Your task to perform on an android device: toggle location history Image 0: 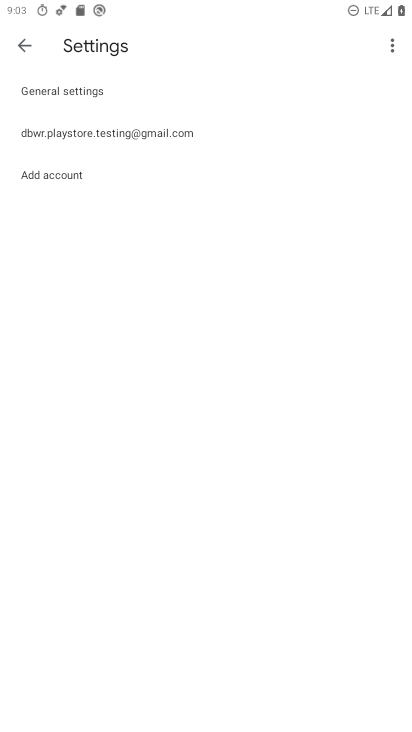
Step 0: drag from (209, 584) to (190, 66)
Your task to perform on an android device: toggle location history Image 1: 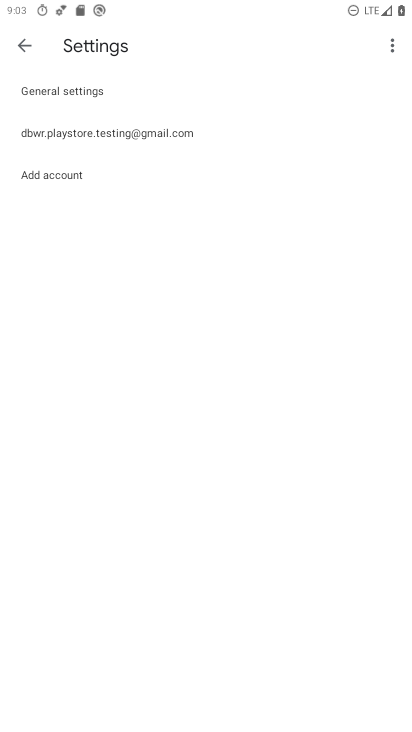
Step 1: press home button
Your task to perform on an android device: toggle location history Image 2: 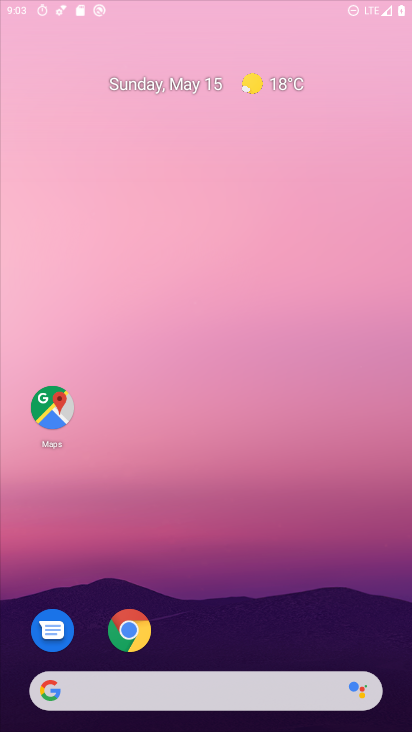
Step 2: drag from (131, 559) to (171, 21)
Your task to perform on an android device: toggle location history Image 3: 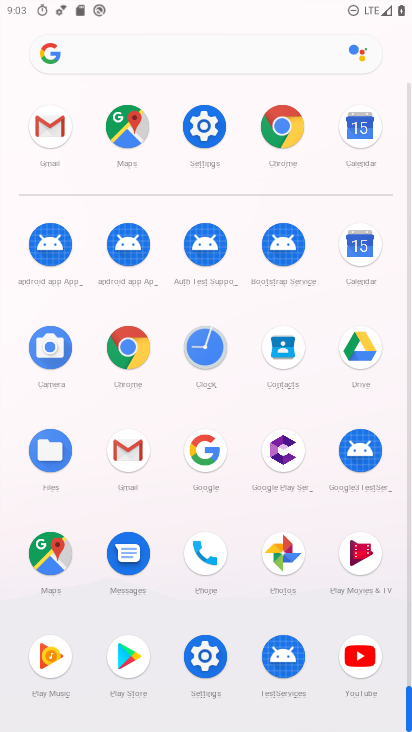
Step 3: click (196, 120)
Your task to perform on an android device: toggle location history Image 4: 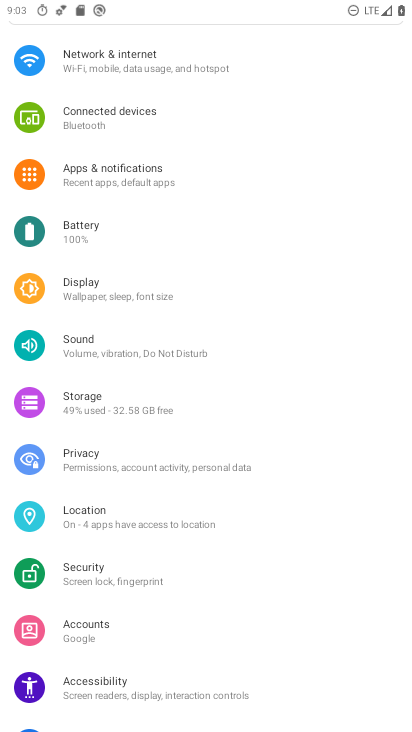
Step 4: click (104, 516)
Your task to perform on an android device: toggle location history Image 5: 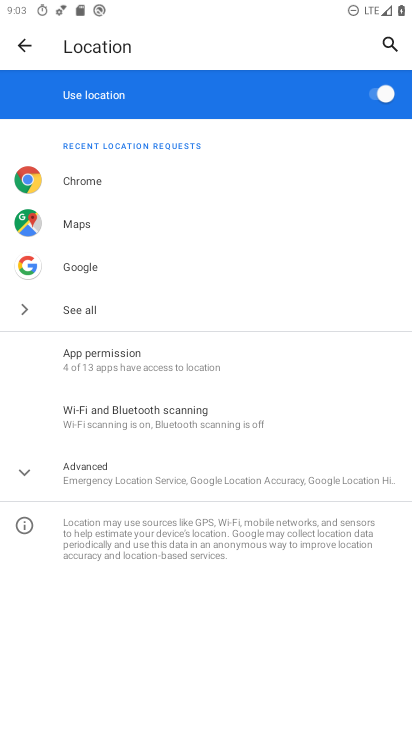
Step 5: click (156, 484)
Your task to perform on an android device: toggle location history Image 6: 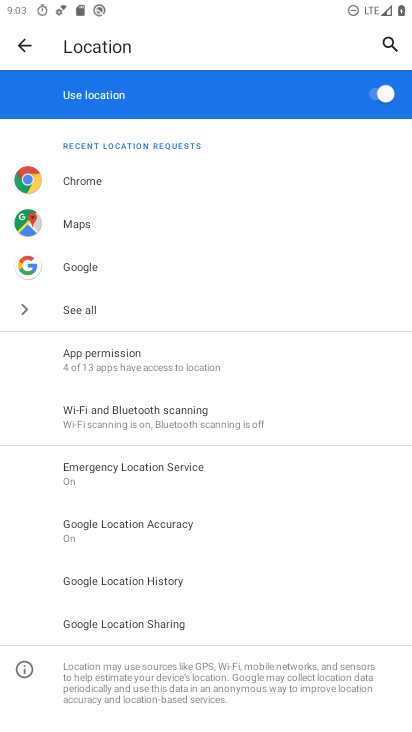
Step 6: click (167, 573)
Your task to perform on an android device: toggle location history Image 7: 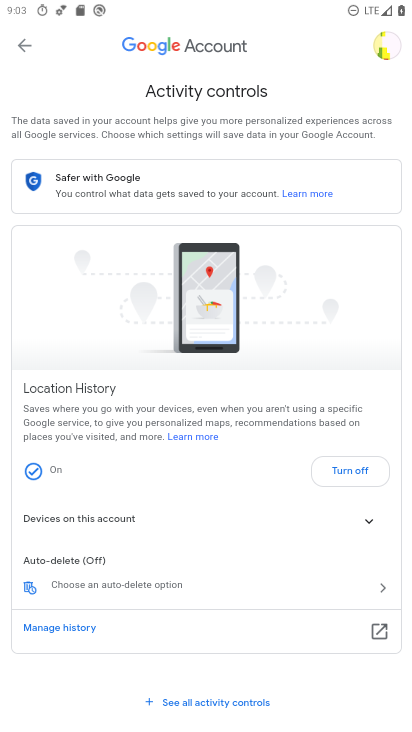
Step 7: click (346, 474)
Your task to perform on an android device: toggle location history Image 8: 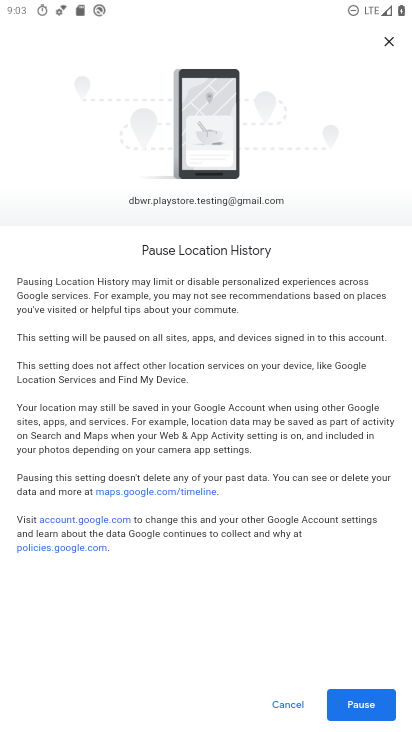
Step 8: click (348, 704)
Your task to perform on an android device: toggle location history Image 9: 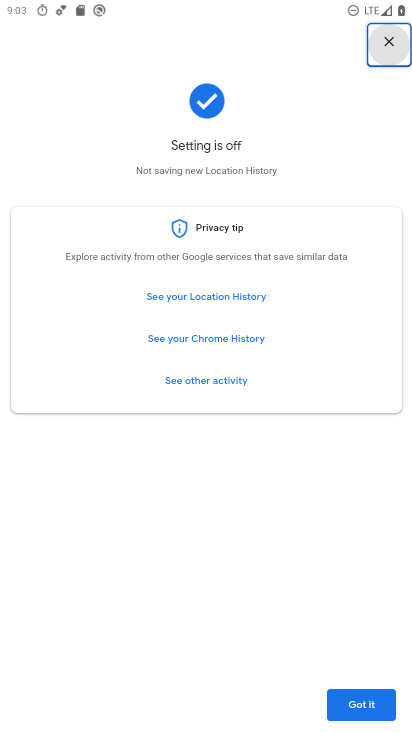
Step 9: click (376, 705)
Your task to perform on an android device: toggle location history Image 10: 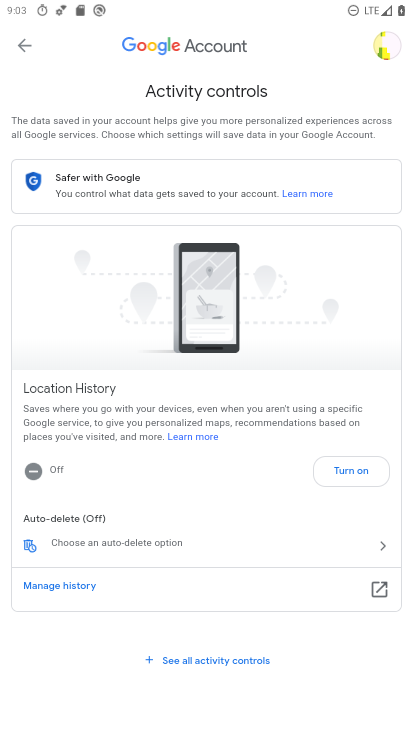
Step 10: task complete